Your task to perform on an android device: What's the weather going to be this weekend? Image 0: 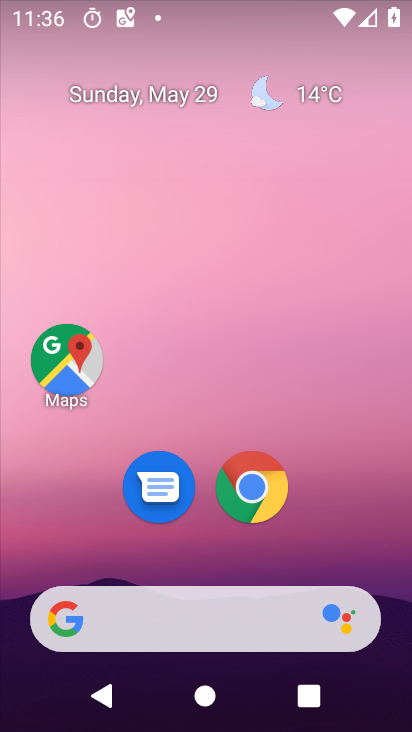
Step 0: click (298, 89)
Your task to perform on an android device: What's the weather going to be this weekend? Image 1: 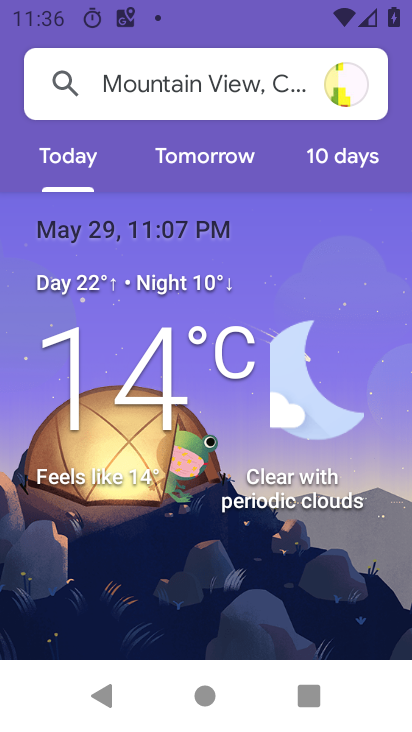
Step 1: click (319, 151)
Your task to perform on an android device: What's the weather going to be this weekend? Image 2: 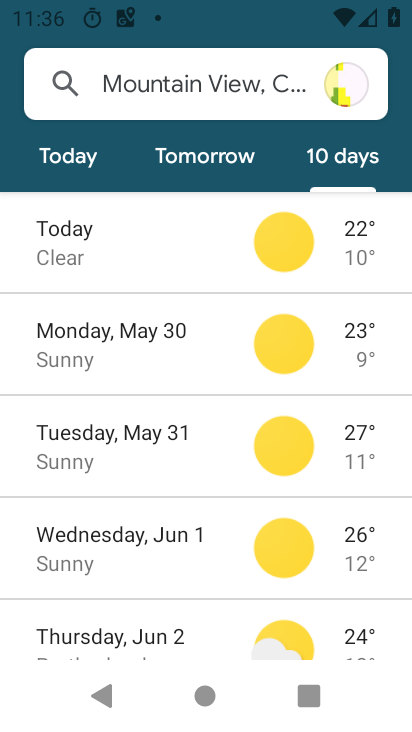
Step 2: task complete